Your task to perform on an android device: refresh tabs in the chrome app Image 0: 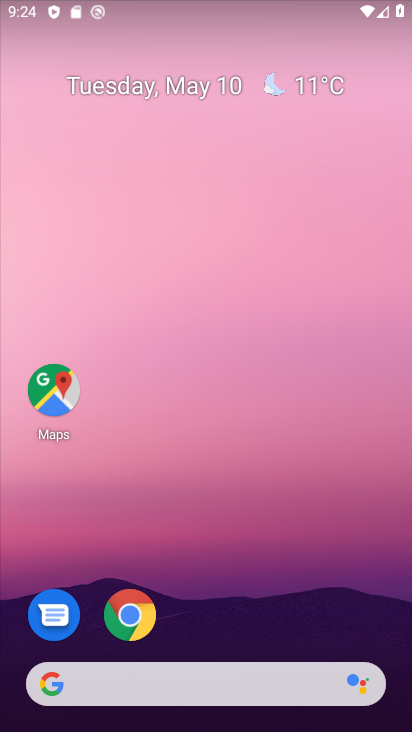
Step 0: click (130, 619)
Your task to perform on an android device: refresh tabs in the chrome app Image 1: 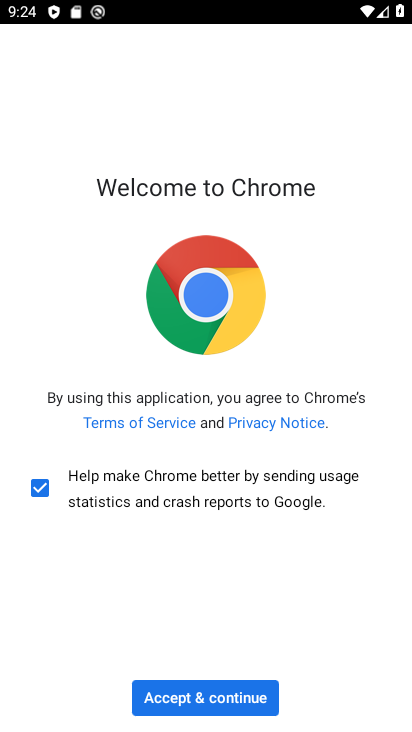
Step 1: click (171, 696)
Your task to perform on an android device: refresh tabs in the chrome app Image 2: 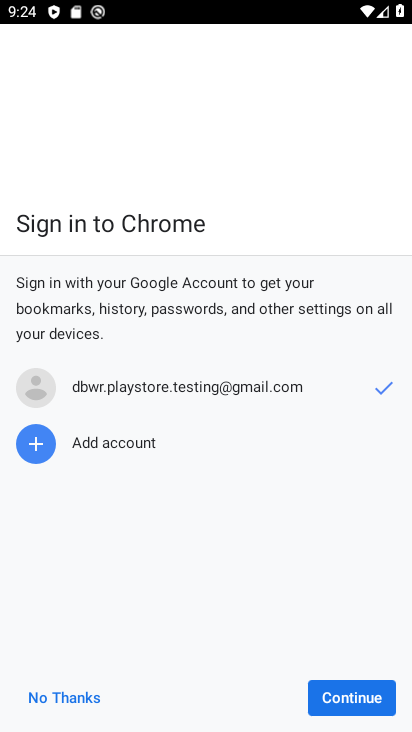
Step 2: click (336, 690)
Your task to perform on an android device: refresh tabs in the chrome app Image 3: 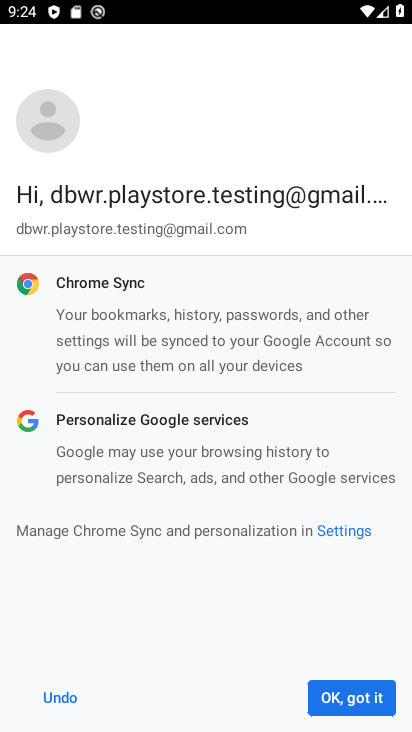
Step 3: click (336, 690)
Your task to perform on an android device: refresh tabs in the chrome app Image 4: 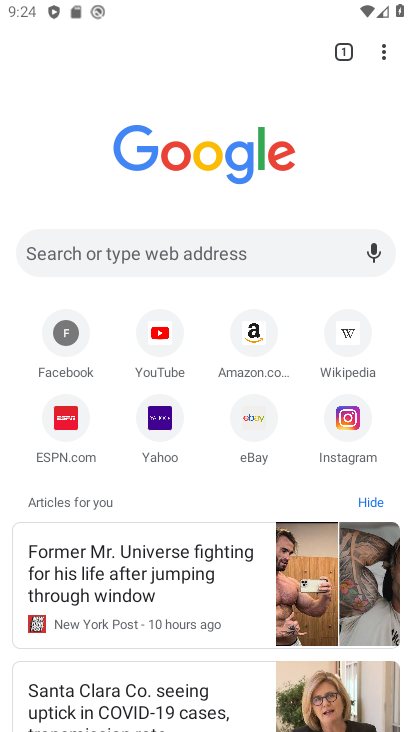
Step 4: click (382, 47)
Your task to perform on an android device: refresh tabs in the chrome app Image 5: 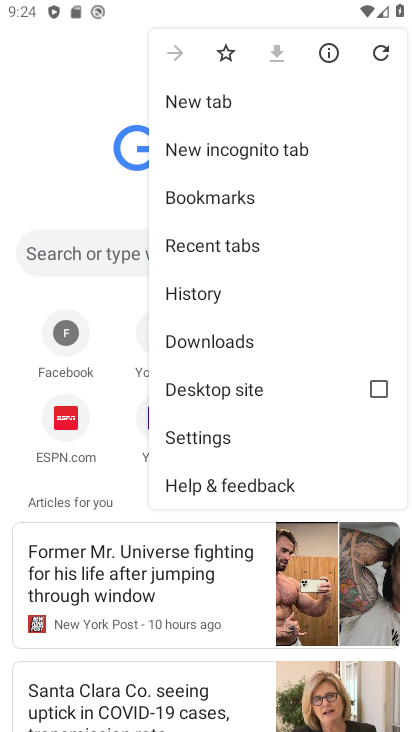
Step 5: click (382, 47)
Your task to perform on an android device: refresh tabs in the chrome app Image 6: 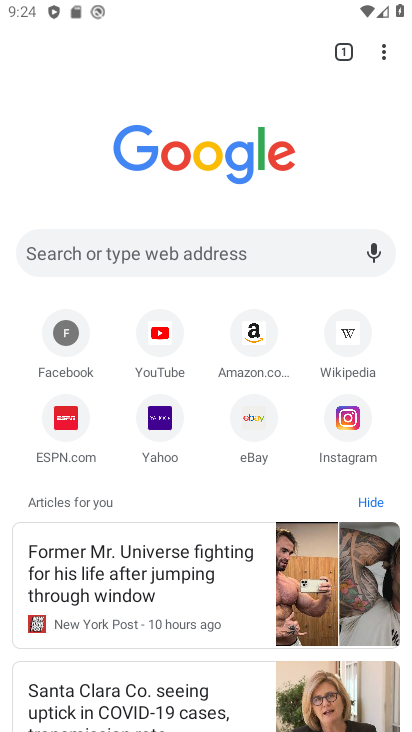
Step 6: task complete